Your task to perform on an android device: Add acer nitro to the cart on walmart Image 0: 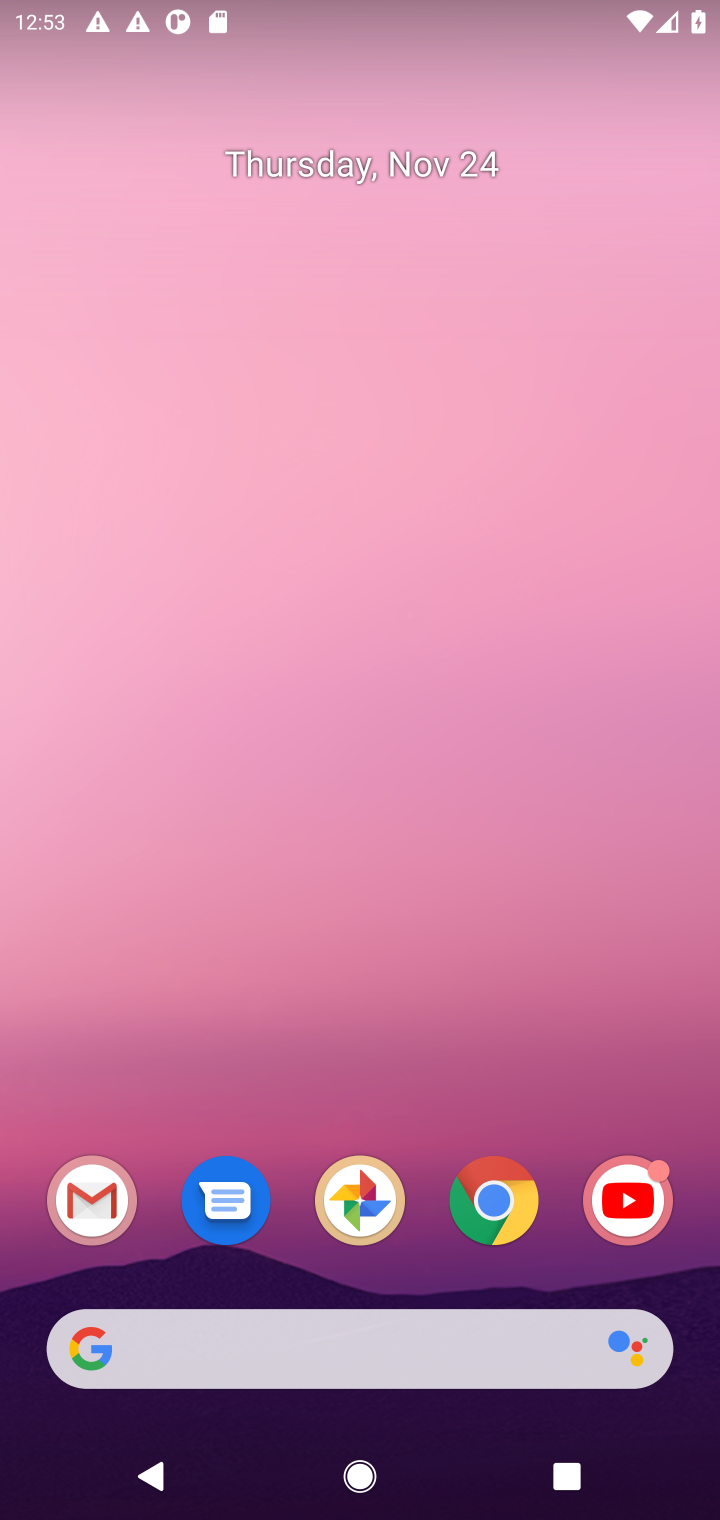
Step 0: click (487, 1350)
Your task to perform on an android device: Add acer nitro to the cart on walmart Image 1: 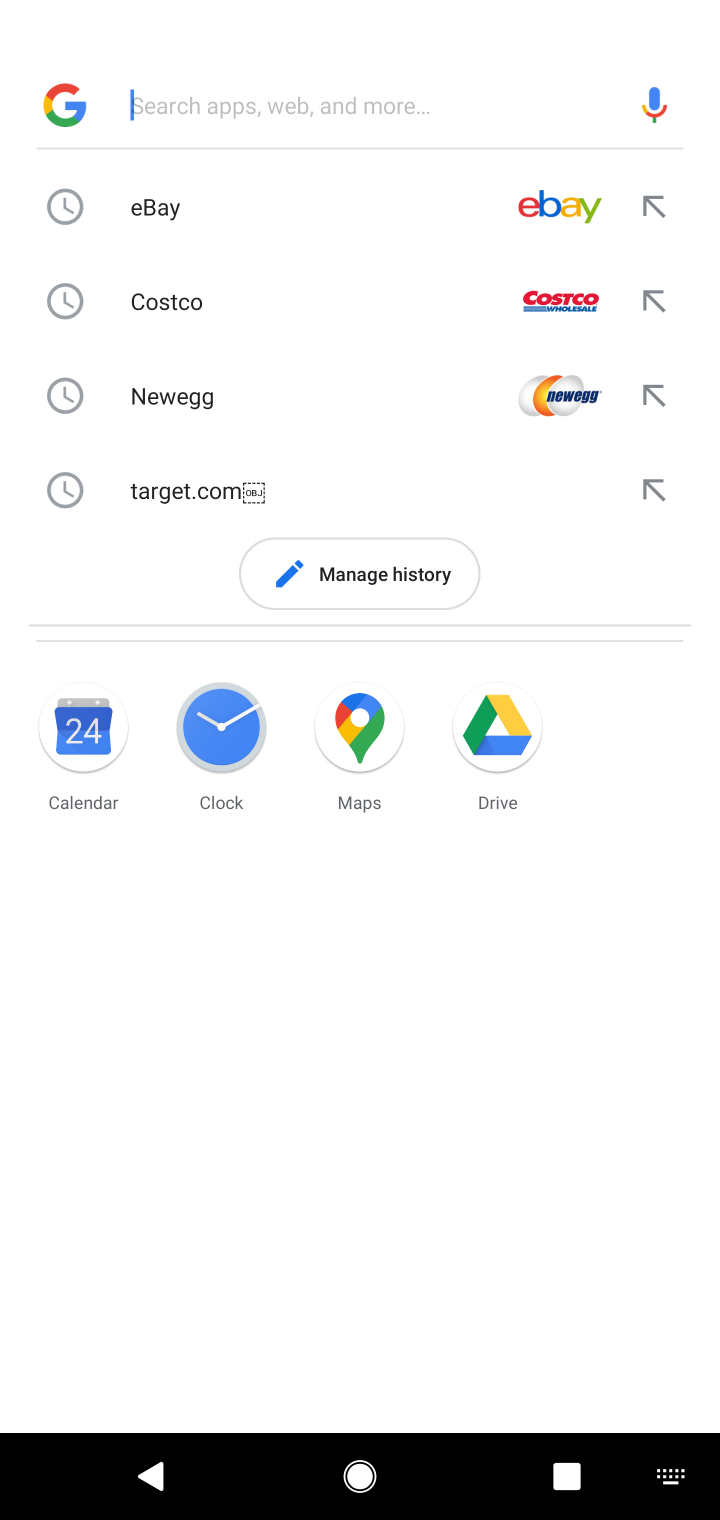
Step 1: type "walmart"
Your task to perform on an android device: Add acer nitro to the cart on walmart Image 2: 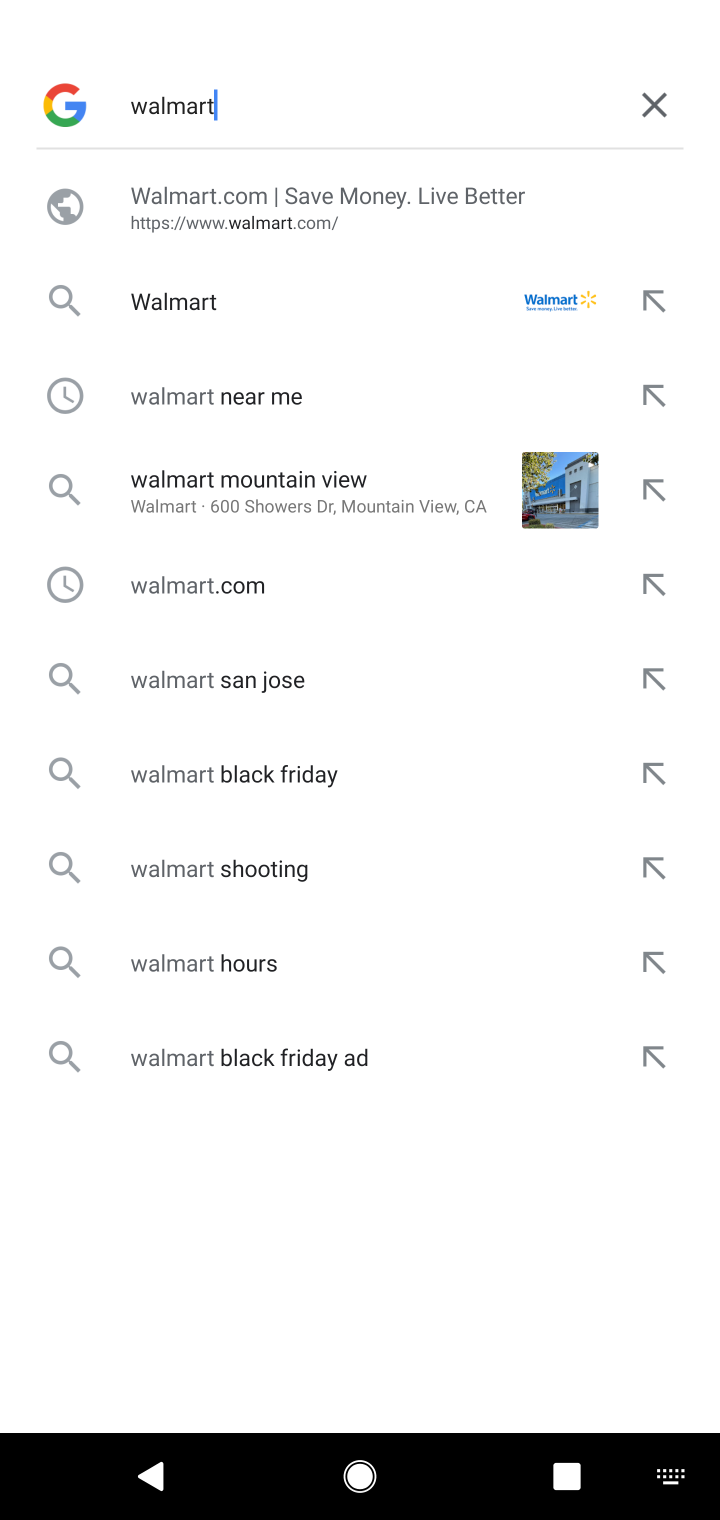
Step 2: click (222, 322)
Your task to perform on an android device: Add acer nitro to the cart on walmart Image 3: 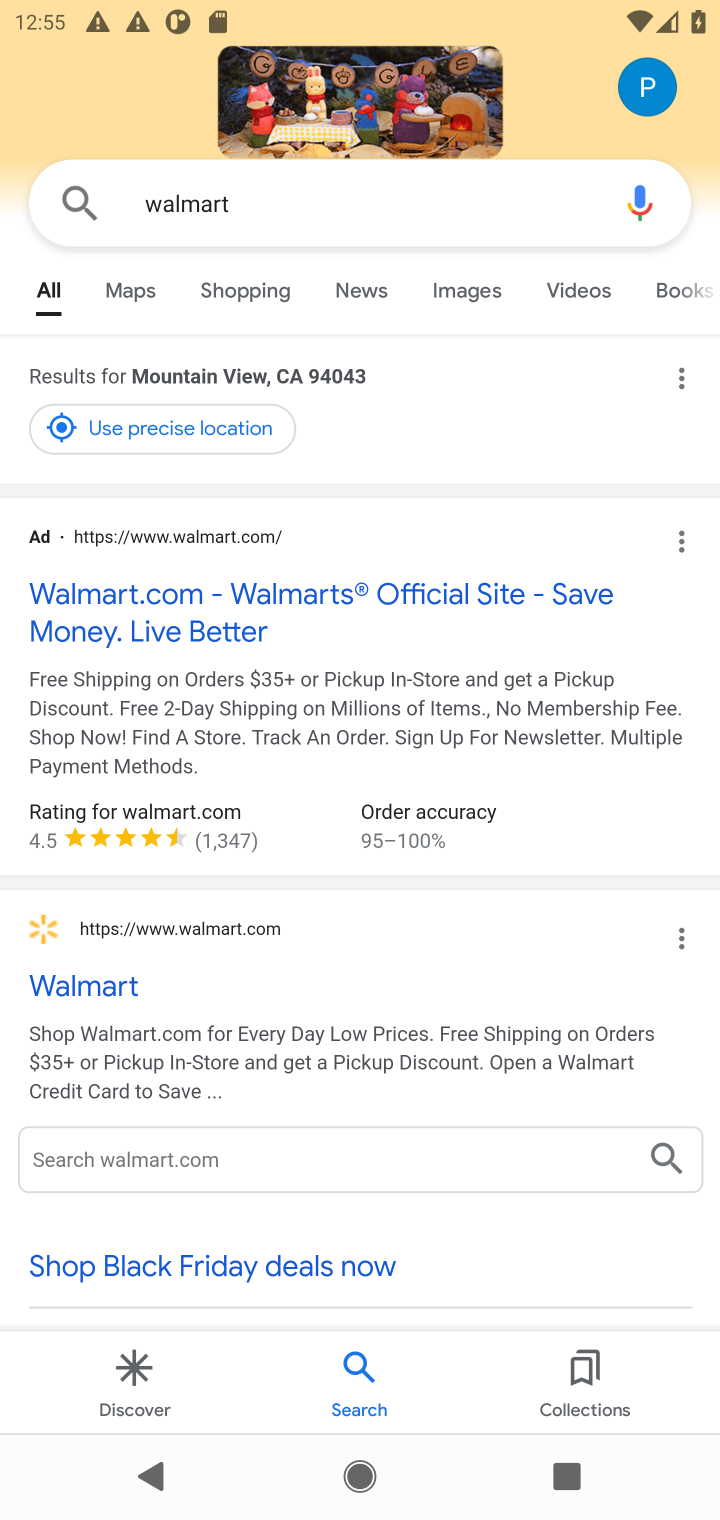
Step 3: click (242, 645)
Your task to perform on an android device: Add acer nitro to the cart on walmart Image 4: 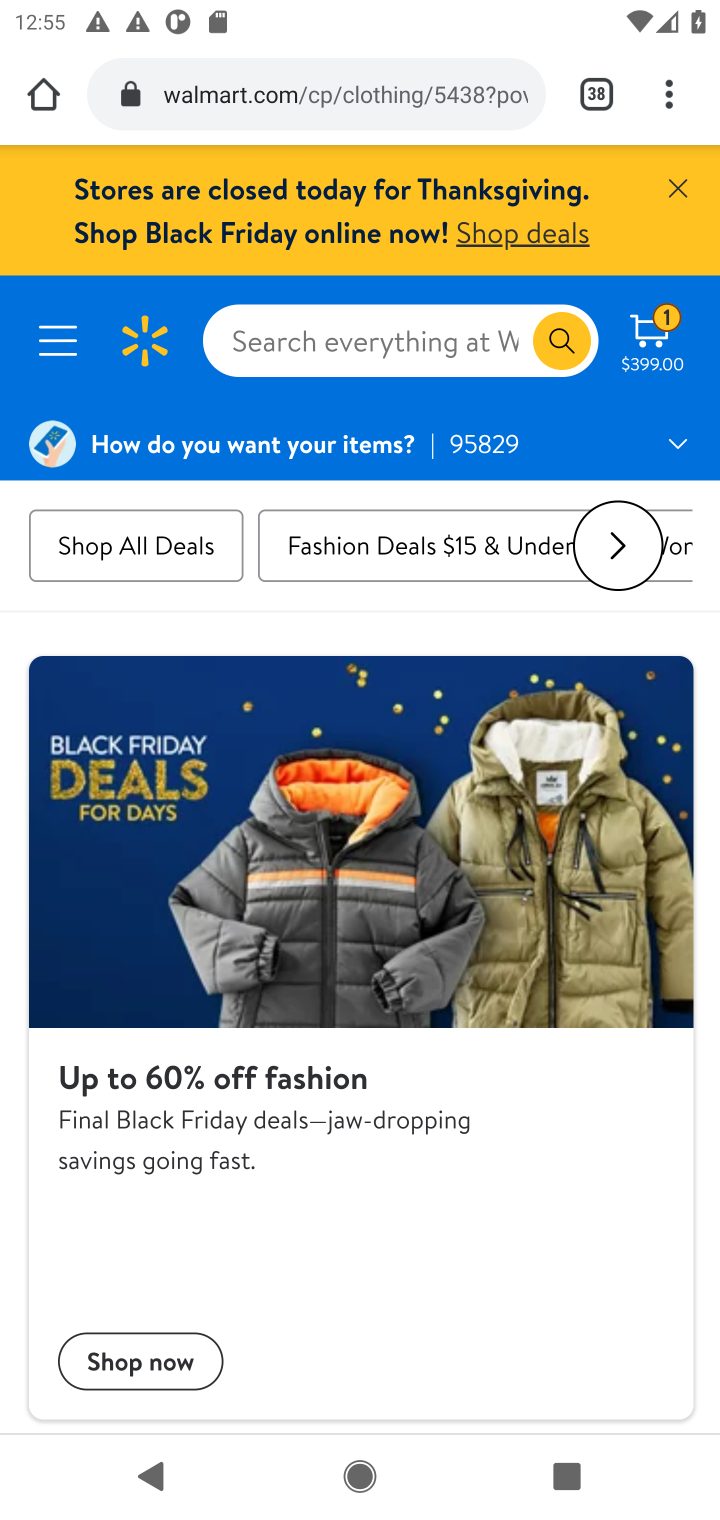
Step 4: task complete